Your task to perform on an android device: Check the weather Image 0: 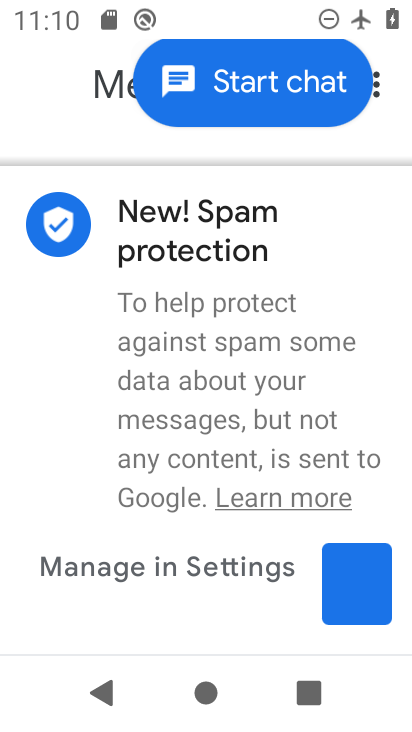
Step 0: press home button
Your task to perform on an android device: Check the weather Image 1: 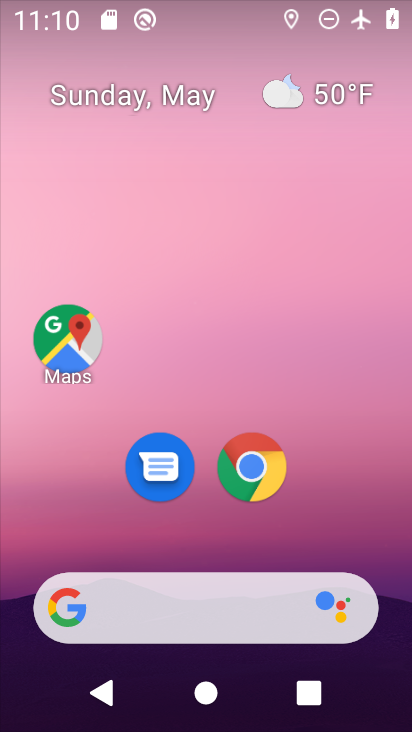
Step 1: drag from (219, 480) to (201, 79)
Your task to perform on an android device: Check the weather Image 2: 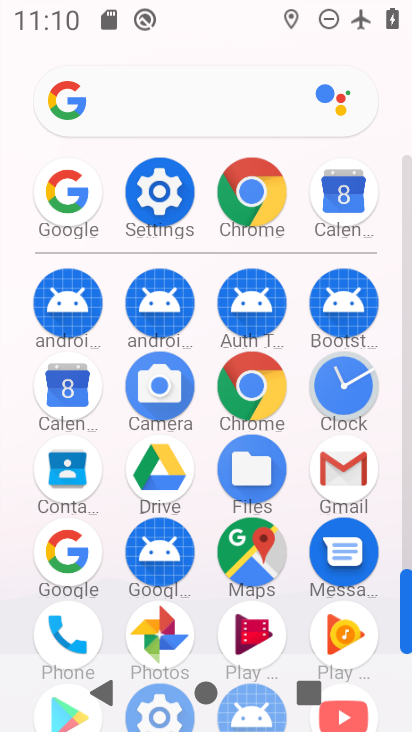
Step 2: click (84, 563)
Your task to perform on an android device: Check the weather Image 3: 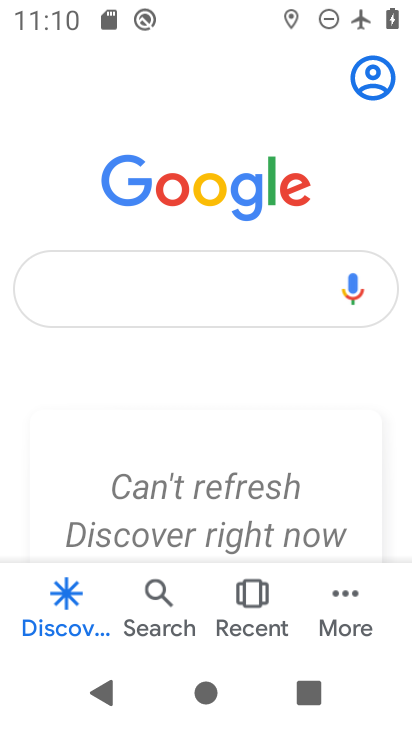
Step 3: click (158, 301)
Your task to perform on an android device: Check the weather Image 4: 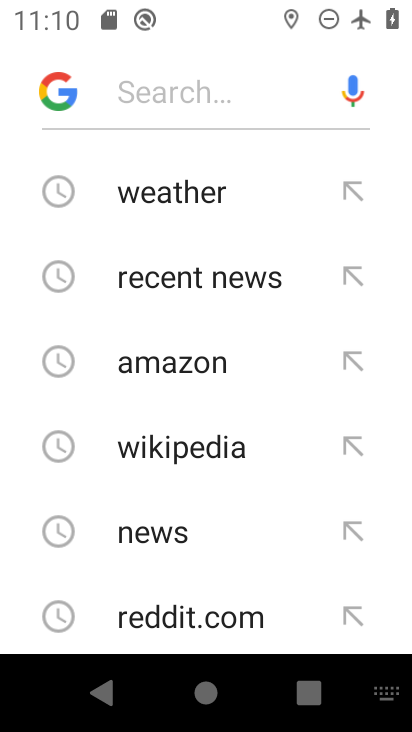
Step 4: click (214, 188)
Your task to perform on an android device: Check the weather Image 5: 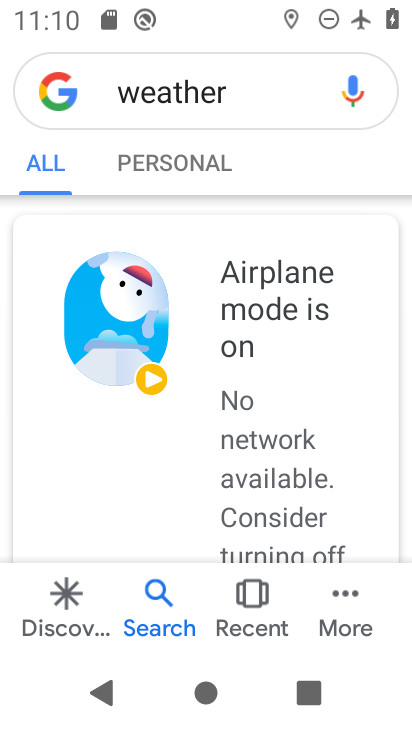
Step 5: task complete